Your task to perform on an android device: add a contact in the contacts app Image 0: 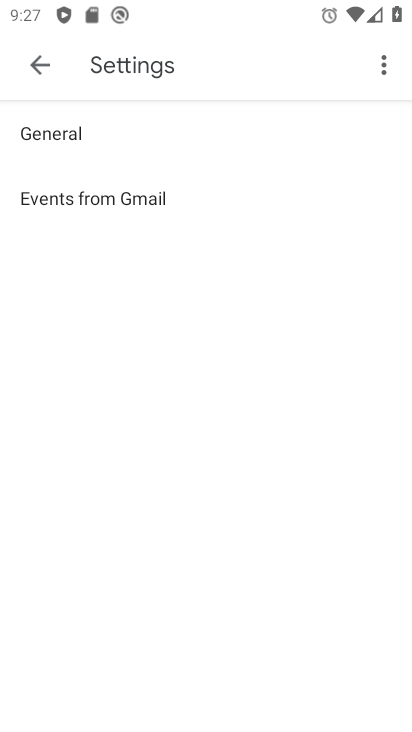
Step 0: press home button
Your task to perform on an android device: add a contact in the contacts app Image 1: 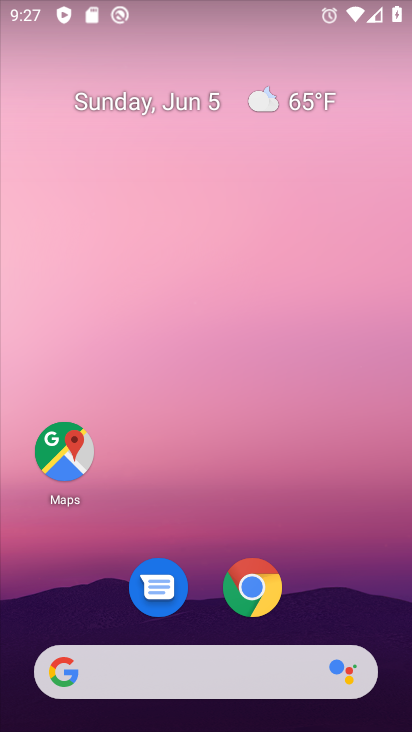
Step 1: drag from (74, 638) to (193, 54)
Your task to perform on an android device: add a contact in the contacts app Image 2: 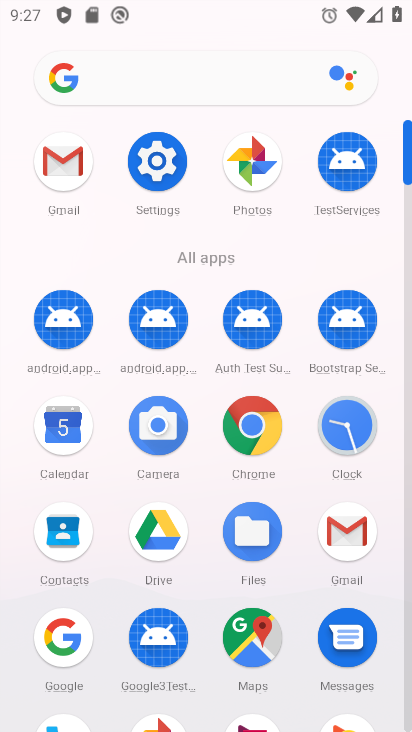
Step 2: click (56, 552)
Your task to perform on an android device: add a contact in the contacts app Image 3: 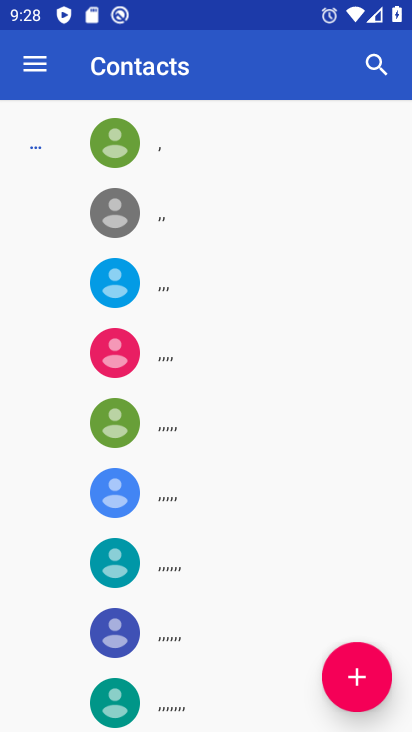
Step 3: click (386, 673)
Your task to perform on an android device: add a contact in the contacts app Image 4: 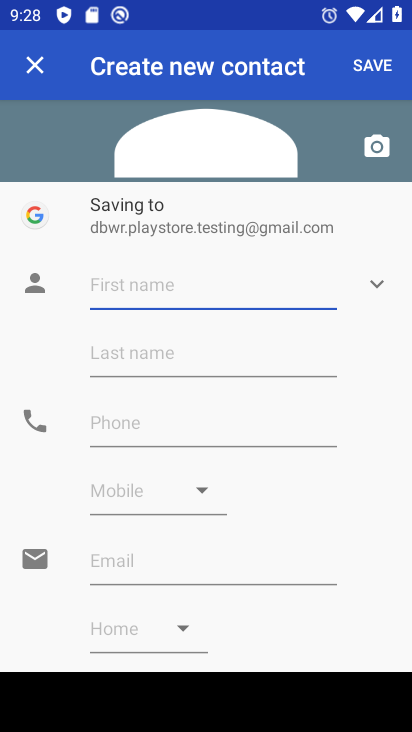
Step 4: type "pim"
Your task to perform on an android device: add a contact in the contacts app Image 5: 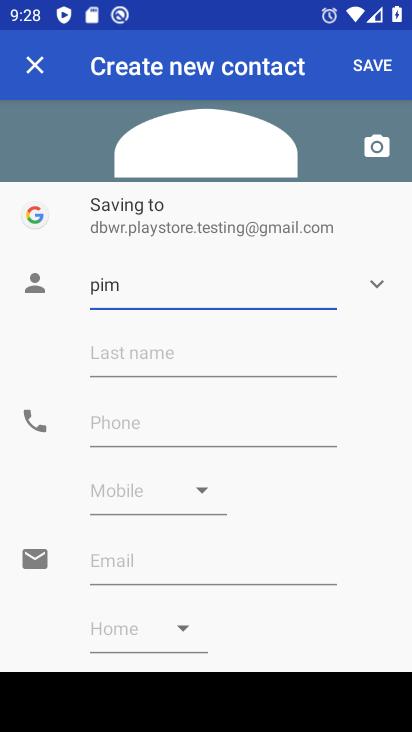
Step 5: click (105, 443)
Your task to perform on an android device: add a contact in the contacts app Image 6: 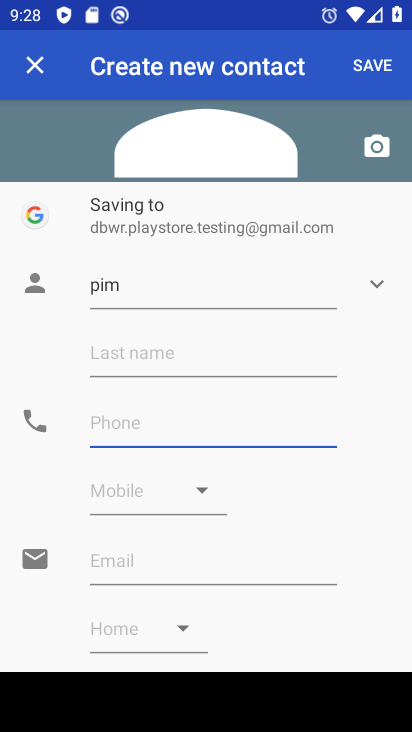
Step 6: type "989898878"
Your task to perform on an android device: add a contact in the contacts app Image 7: 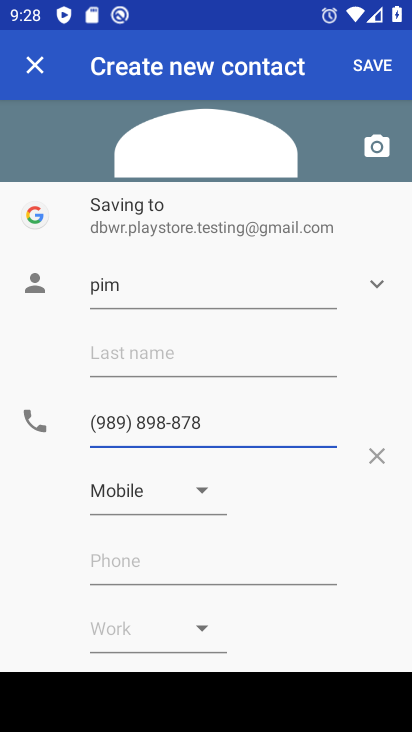
Step 7: type "12"
Your task to perform on an android device: add a contact in the contacts app Image 8: 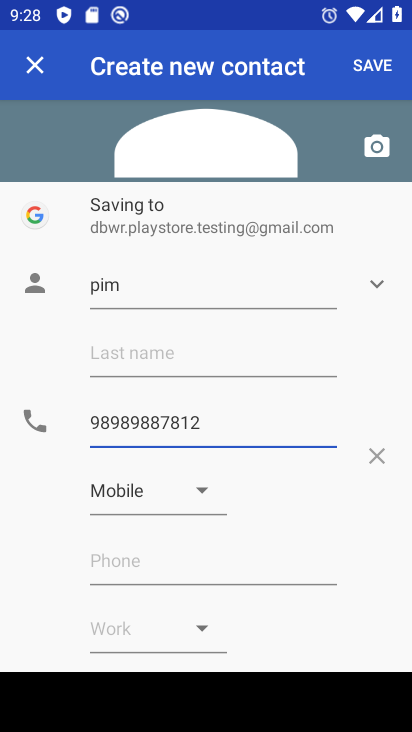
Step 8: click (397, 46)
Your task to perform on an android device: add a contact in the contacts app Image 9: 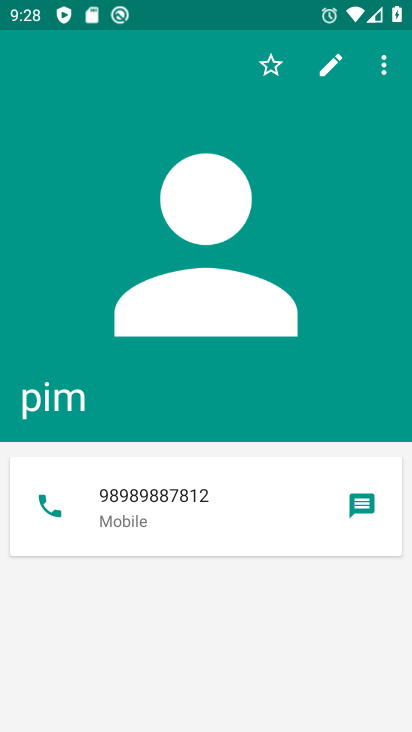
Step 9: task complete